Your task to perform on an android device: Go to calendar. Show me events next week Image 0: 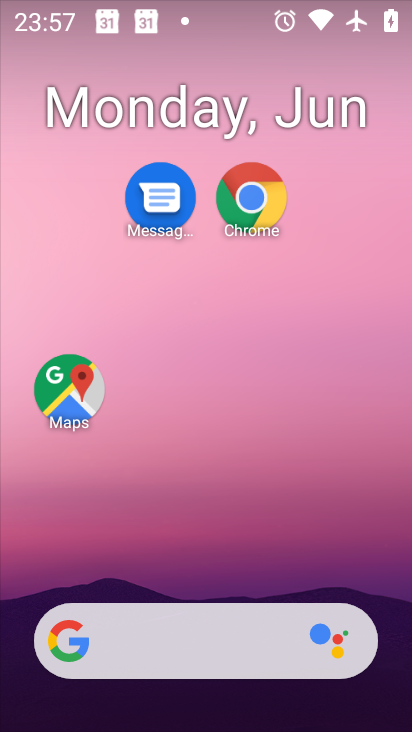
Step 0: drag from (188, 559) to (195, 187)
Your task to perform on an android device: Go to calendar. Show me events next week Image 1: 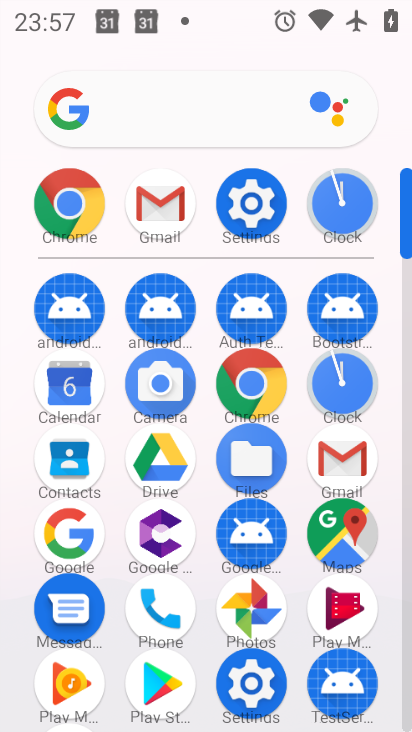
Step 1: click (83, 371)
Your task to perform on an android device: Go to calendar. Show me events next week Image 2: 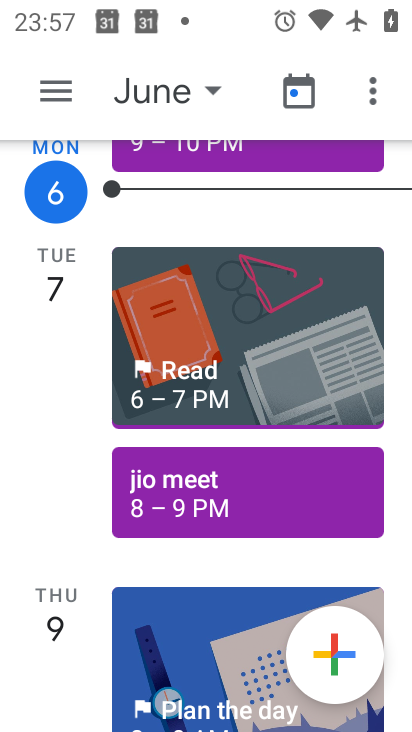
Step 2: click (200, 109)
Your task to perform on an android device: Go to calendar. Show me events next week Image 3: 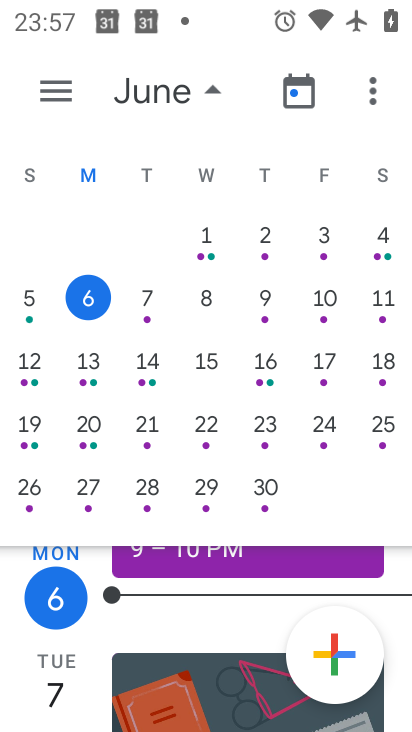
Step 3: click (80, 344)
Your task to perform on an android device: Go to calendar. Show me events next week Image 4: 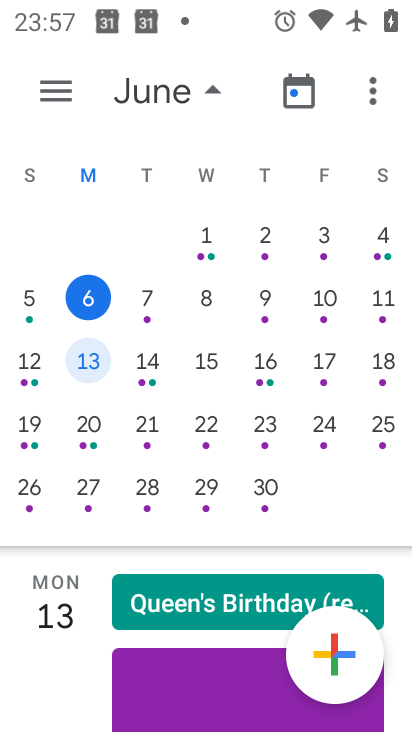
Step 4: click (42, 362)
Your task to perform on an android device: Go to calendar. Show me events next week Image 5: 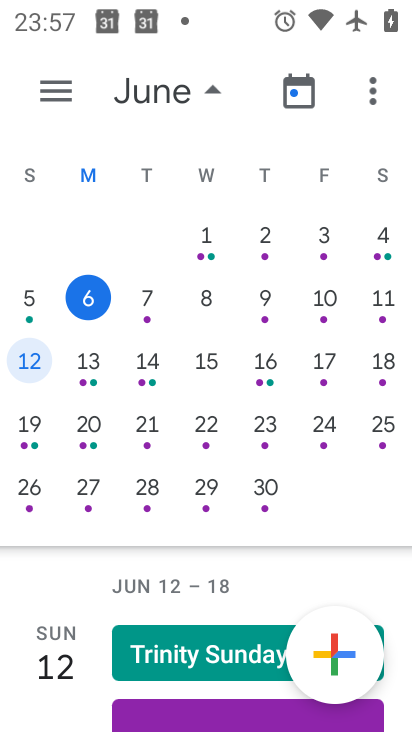
Step 5: click (108, 370)
Your task to perform on an android device: Go to calendar. Show me events next week Image 6: 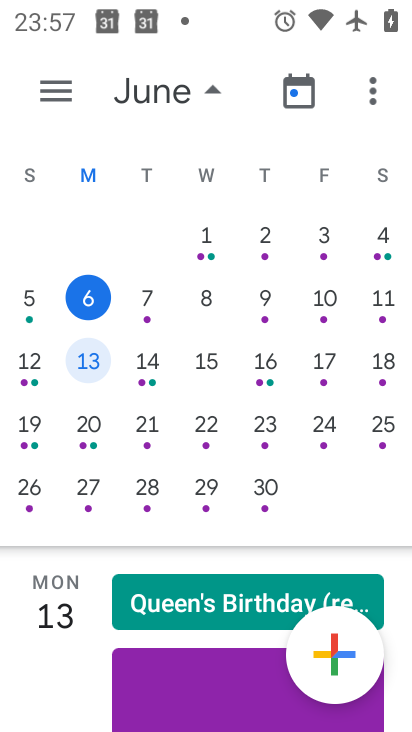
Step 6: click (147, 371)
Your task to perform on an android device: Go to calendar. Show me events next week Image 7: 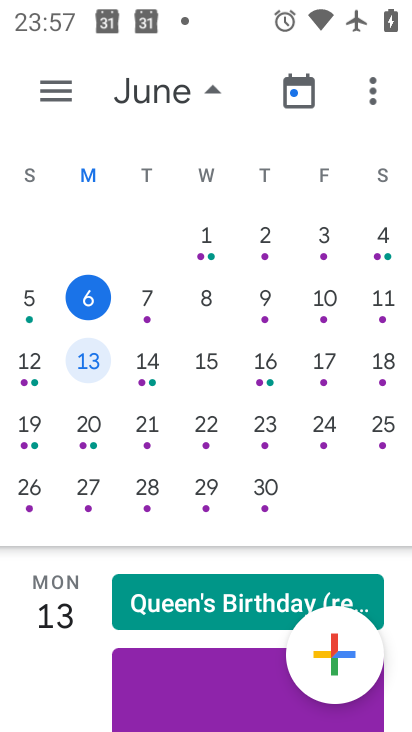
Step 7: click (207, 373)
Your task to perform on an android device: Go to calendar. Show me events next week Image 8: 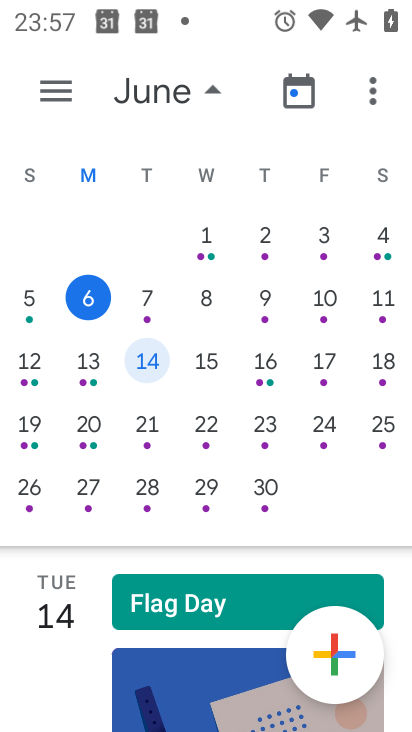
Step 8: click (281, 376)
Your task to perform on an android device: Go to calendar. Show me events next week Image 9: 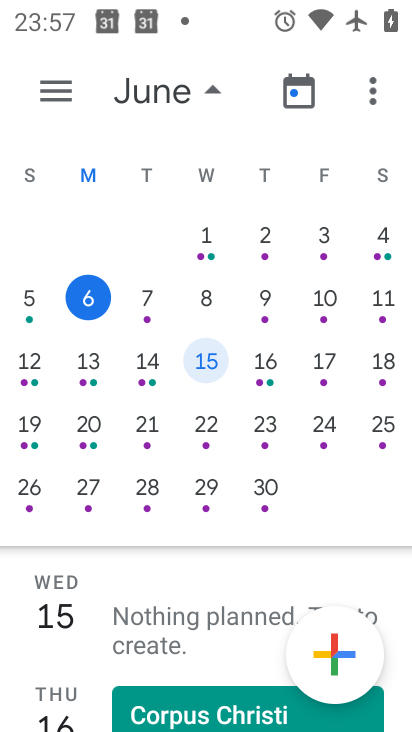
Step 9: click (304, 375)
Your task to perform on an android device: Go to calendar. Show me events next week Image 10: 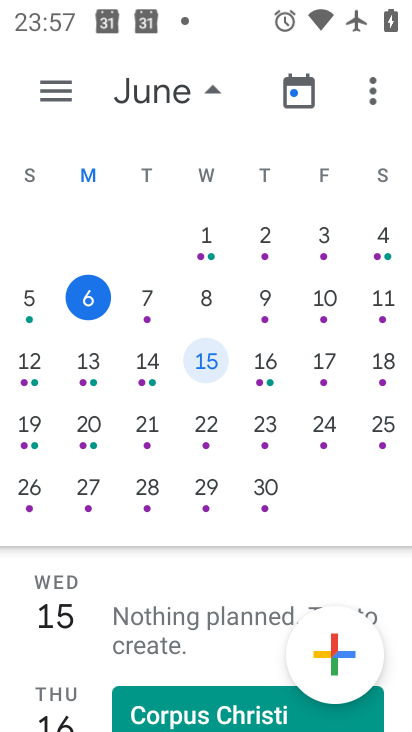
Step 10: click (369, 368)
Your task to perform on an android device: Go to calendar. Show me events next week Image 11: 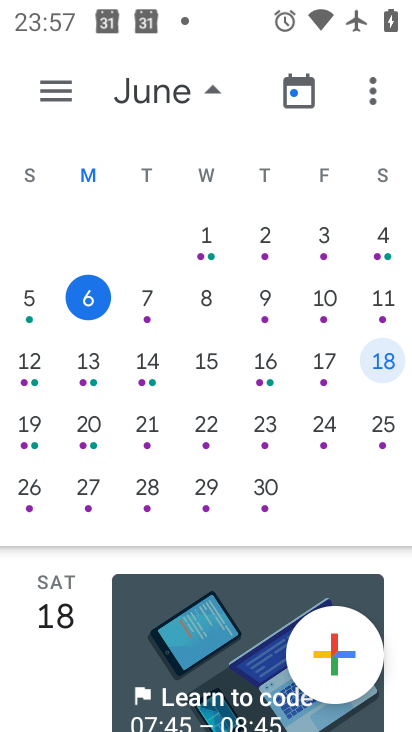
Step 11: click (369, 368)
Your task to perform on an android device: Go to calendar. Show me events next week Image 12: 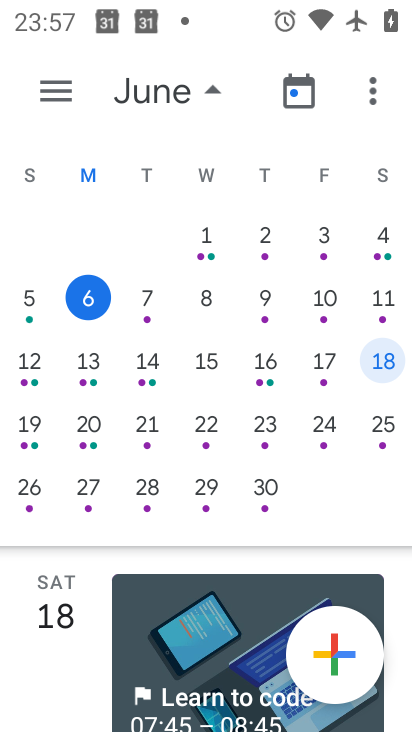
Step 12: click (274, 357)
Your task to perform on an android device: Go to calendar. Show me events next week Image 13: 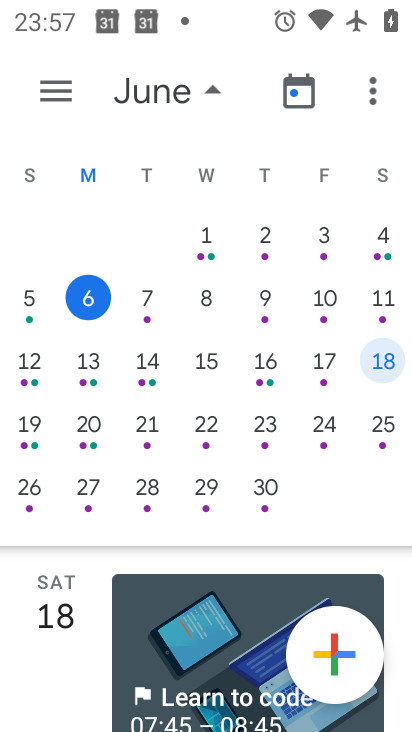
Step 13: click (222, 363)
Your task to perform on an android device: Go to calendar. Show me events next week Image 14: 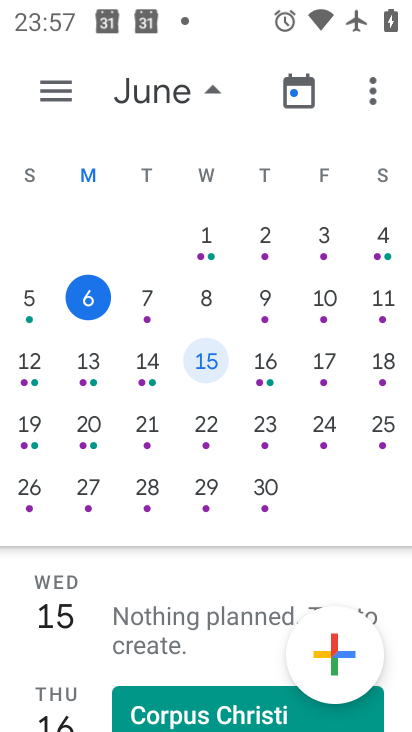
Step 14: click (174, 363)
Your task to perform on an android device: Go to calendar. Show me events next week Image 15: 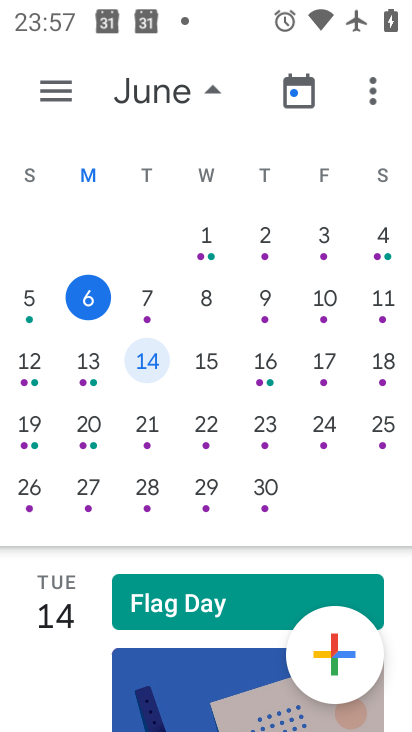
Step 15: click (120, 366)
Your task to perform on an android device: Go to calendar. Show me events next week Image 16: 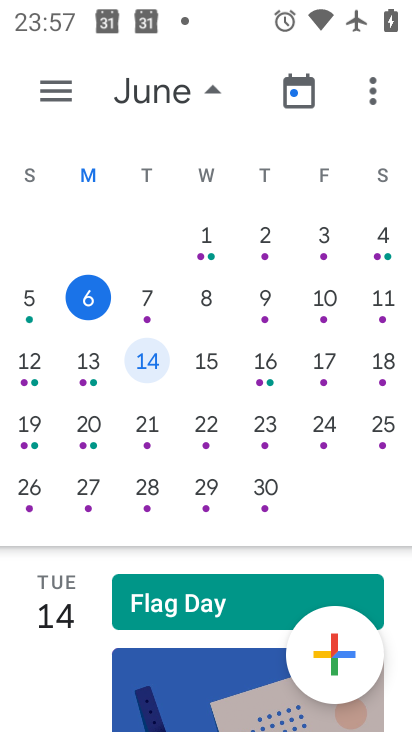
Step 16: click (42, 373)
Your task to perform on an android device: Go to calendar. Show me events next week Image 17: 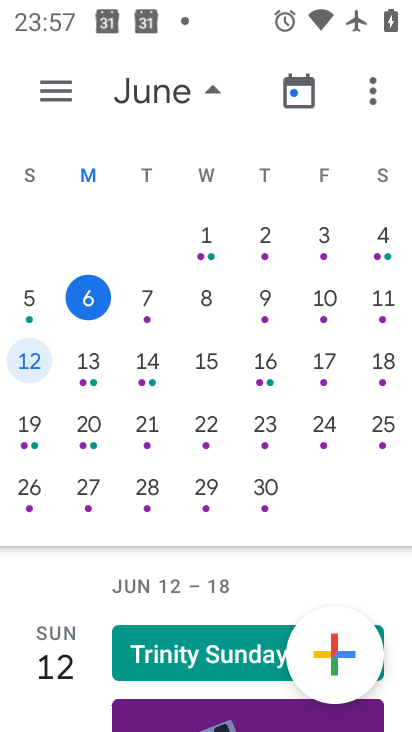
Step 17: click (134, 378)
Your task to perform on an android device: Go to calendar. Show me events next week Image 18: 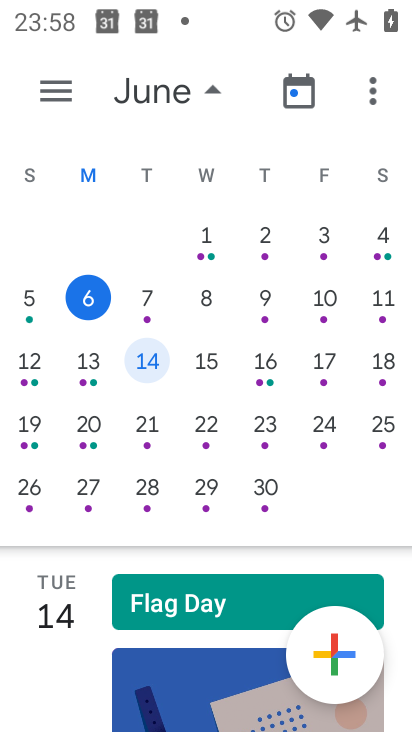
Step 18: click (150, 371)
Your task to perform on an android device: Go to calendar. Show me events next week Image 19: 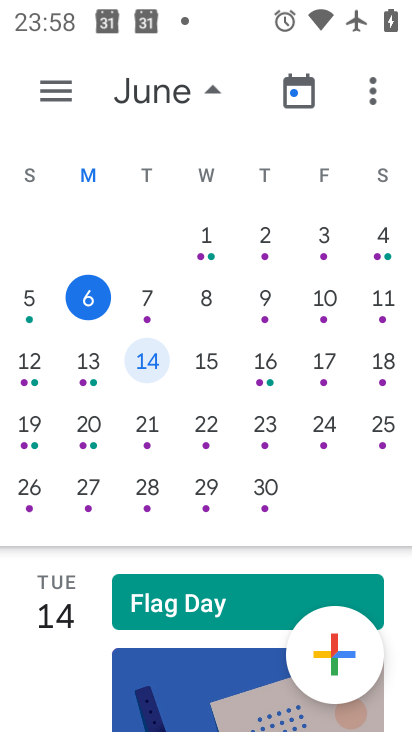
Step 19: click (232, 368)
Your task to perform on an android device: Go to calendar. Show me events next week Image 20: 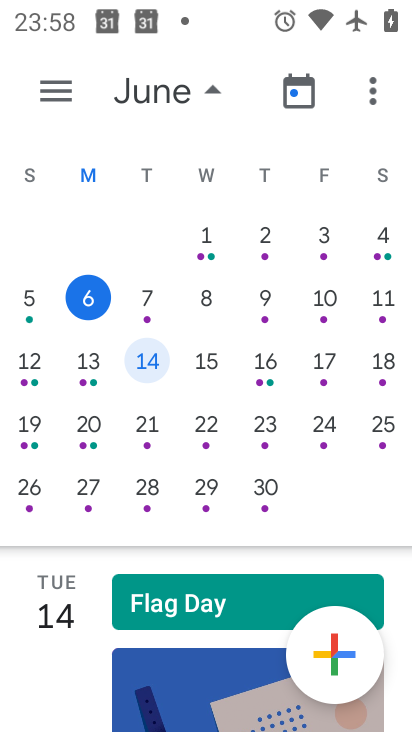
Step 20: click (150, 358)
Your task to perform on an android device: Go to calendar. Show me events next week Image 21: 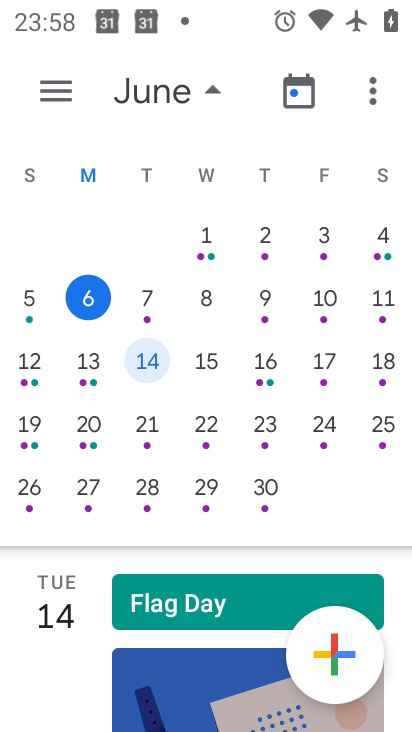
Step 21: click (88, 354)
Your task to perform on an android device: Go to calendar. Show me events next week Image 22: 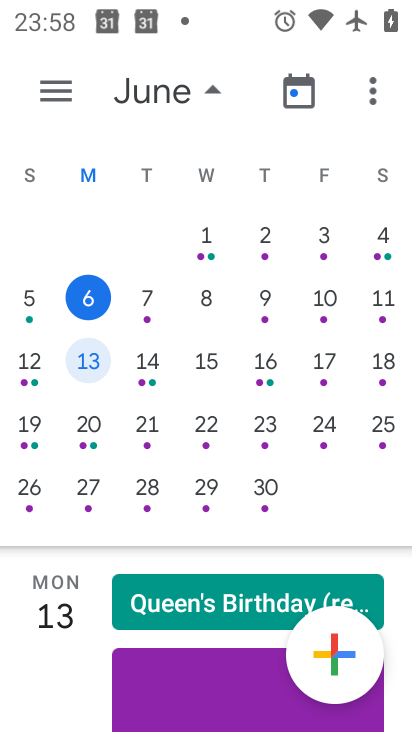
Step 22: task complete